Your task to perform on an android device: create a new album in the google photos Image 0: 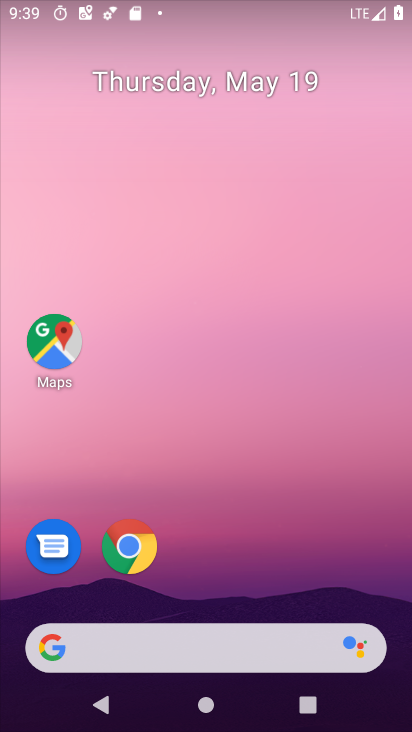
Step 0: drag from (248, 670) to (304, 154)
Your task to perform on an android device: create a new album in the google photos Image 1: 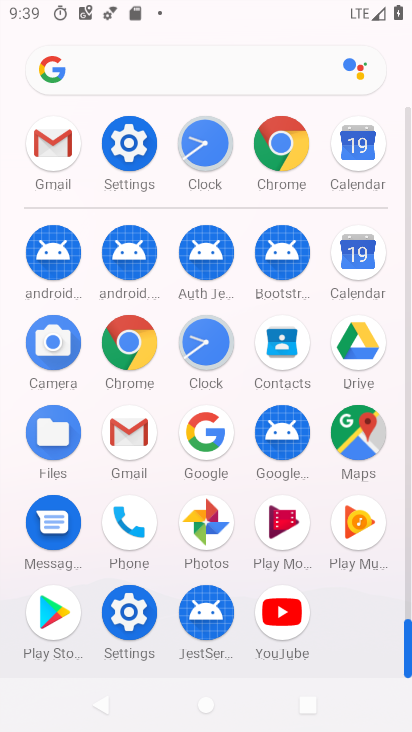
Step 1: click (212, 520)
Your task to perform on an android device: create a new album in the google photos Image 2: 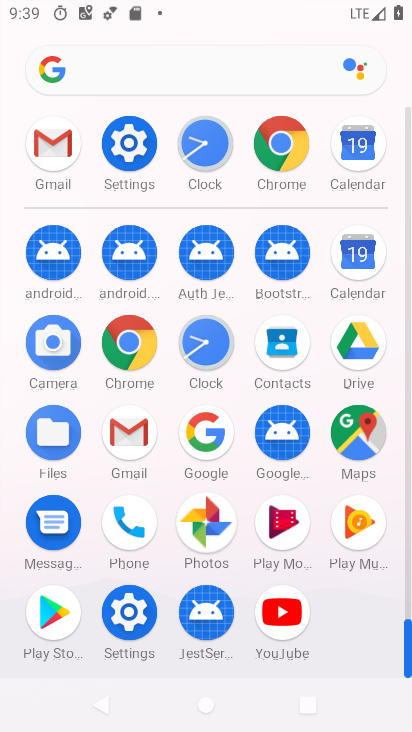
Step 2: click (212, 520)
Your task to perform on an android device: create a new album in the google photos Image 3: 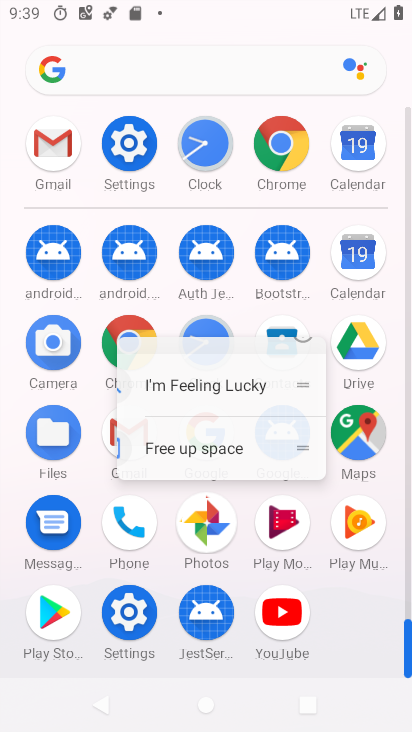
Step 3: click (213, 519)
Your task to perform on an android device: create a new album in the google photos Image 4: 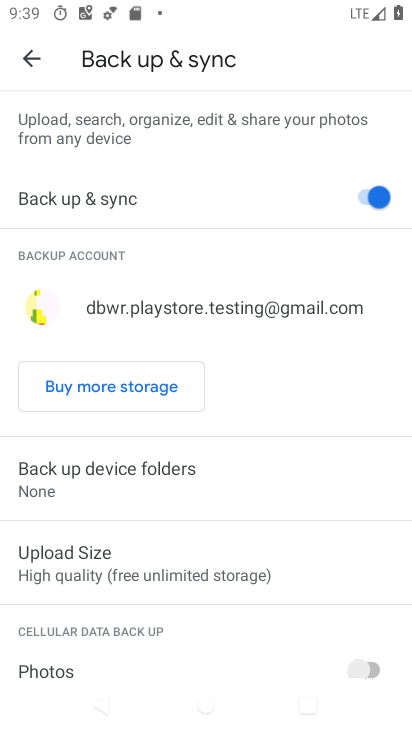
Step 4: click (25, 51)
Your task to perform on an android device: create a new album in the google photos Image 5: 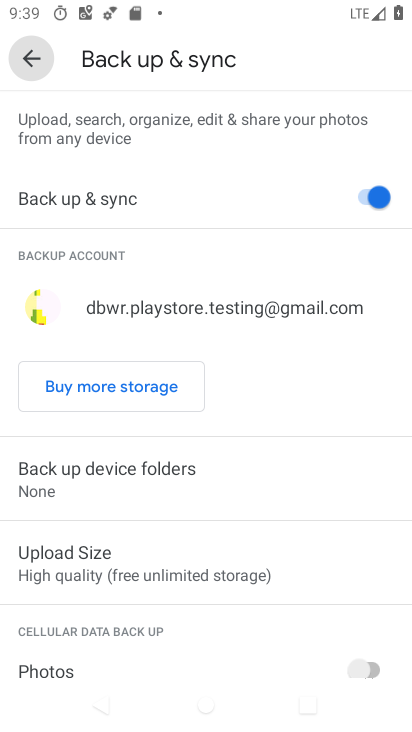
Step 5: click (25, 51)
Your task to perform on an android device: create a new album in the google photos Image 6: 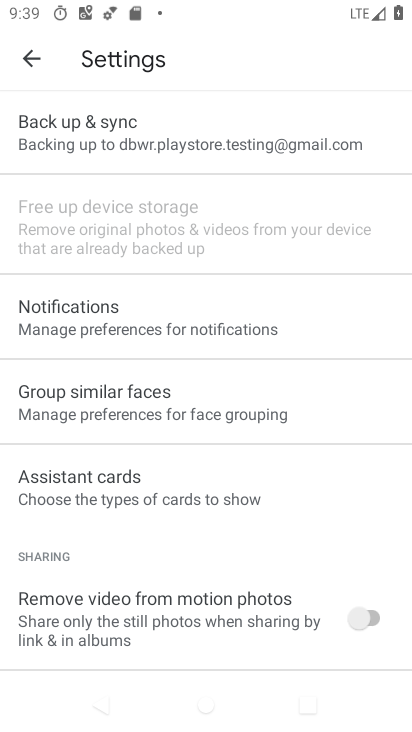
Step 6: click (26, 57)
Your task to perform on an android device: create a new album in the google photos Image 7: 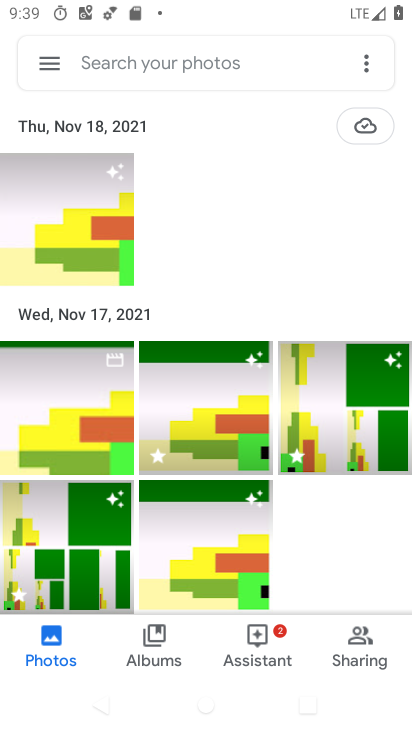
Step 7: click (366, 55)
Your task to perform on an android device: create a new album in the google photos Image 8: 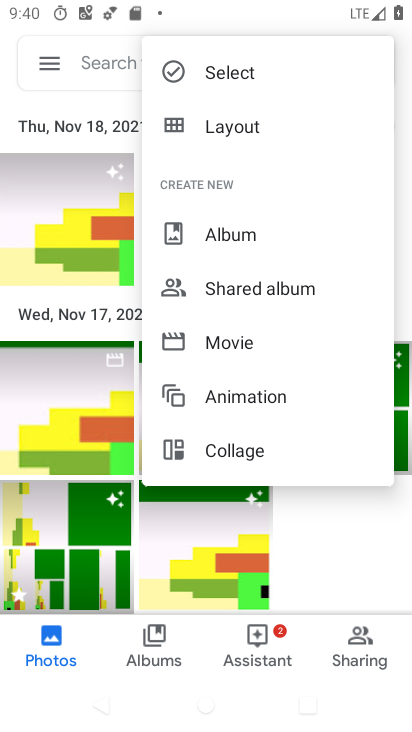
Step 8: click (30, 239)
Your task to perform on an android device: create a new album in the google photos Image 9: 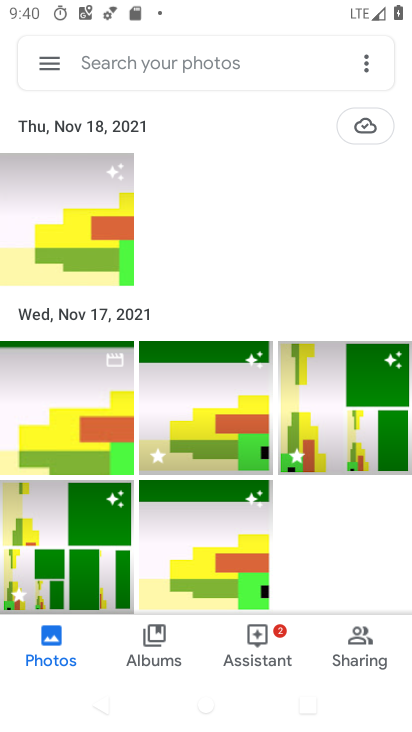
Step 9: click (160, 638)
Your task to perform on an android device: create a new album in the google photos Image 10: 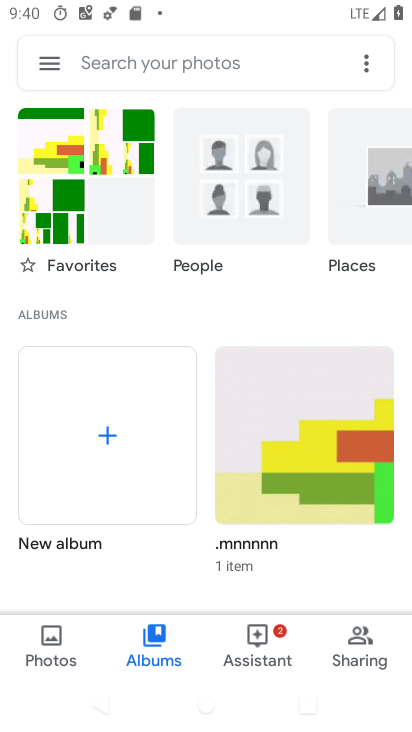
Step 10: click (364, 72)
Your task to perform on an android device: create a new album in the google photos Image 11: 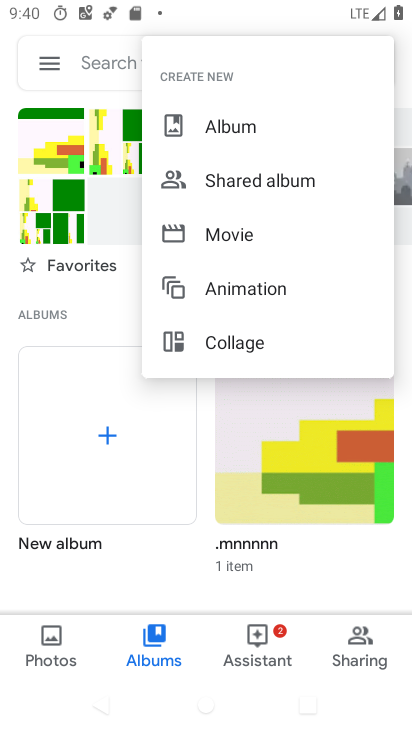
Step 11: click (219, 133)
Your task to perform on an android device: create a new album in the google photos Image 12: 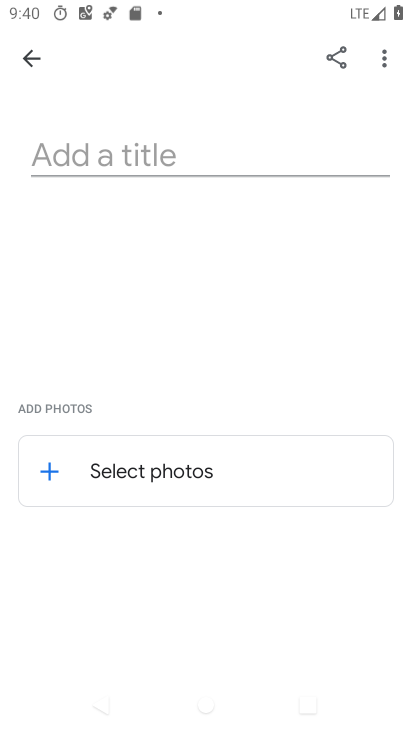
Step 12: click (71, 149)
Your task to perform on an android device: create a new album in the google photos Image 13: 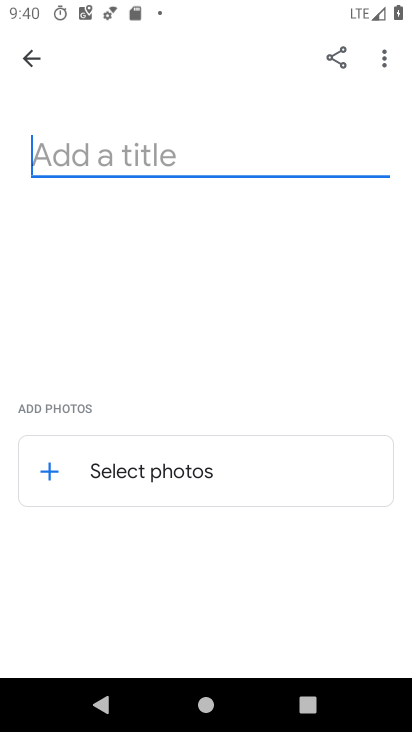
Step 13: type "ram"
Your task to perform on an android device: create a new album in the google photos Image 14: 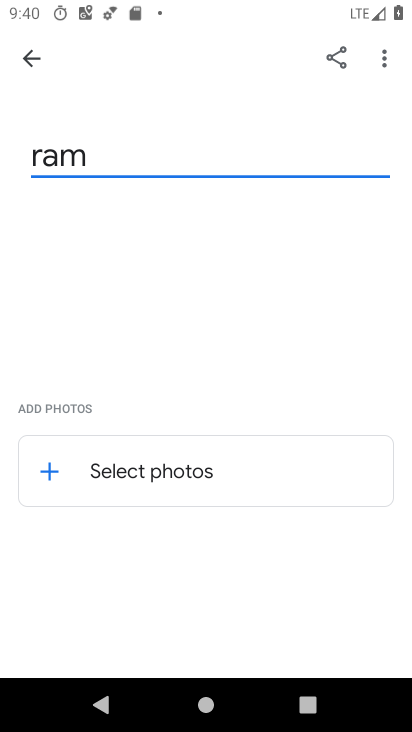
Step 14: click (122, 480)
Your task to perform on an android device: create a new album in the google photos Image 15: 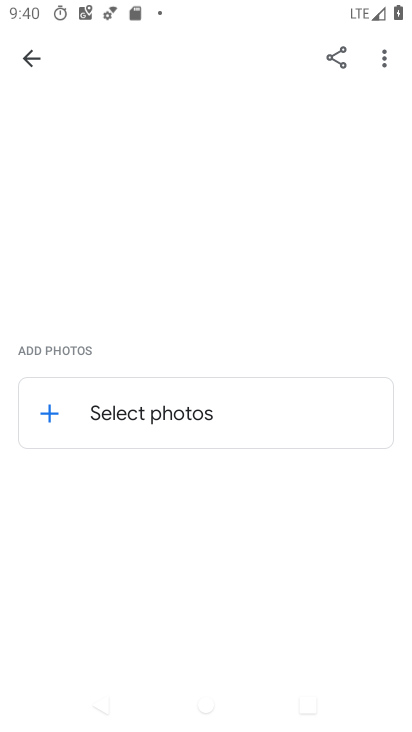
Step 15: click (104, 413)
Your task to perform on an android device: create a new album in the google photos Image 16: 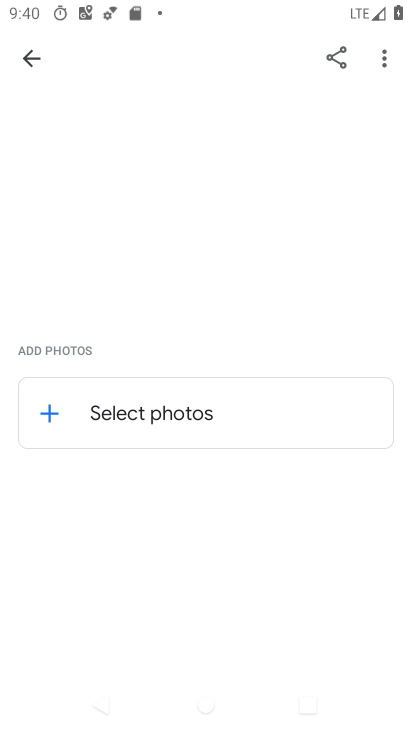
Step 16: click (104, 413)
Your task to perform on an android device: create a new album in the google photos Image 17: 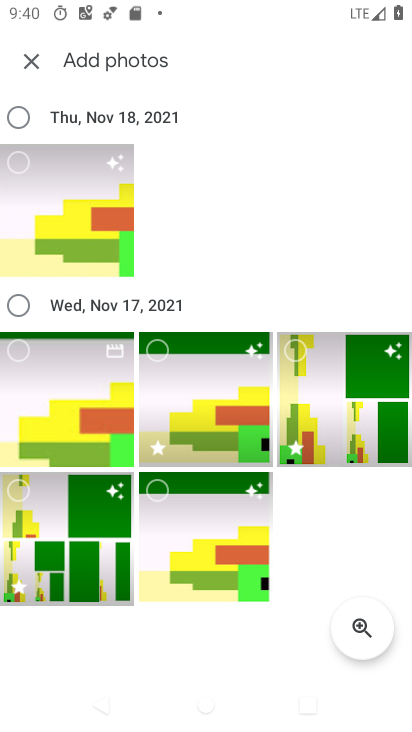
Step 17: click (12, 150)
Your task to perform on an android device: create a new album in the google photos Image 18: 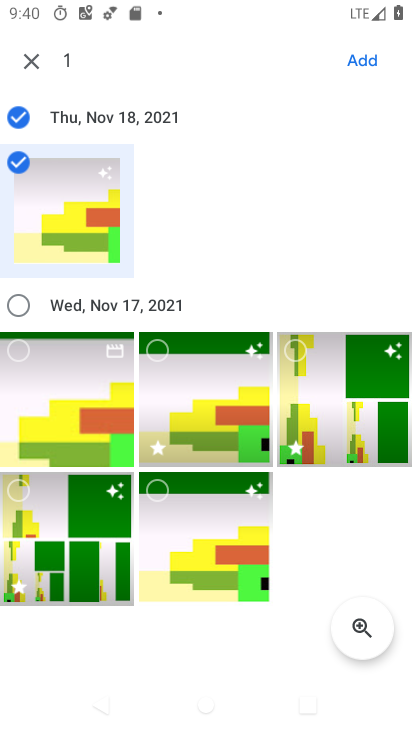
Step 18: click (351, 54)
Your task to perform on an android device: create a new album in the google photos Image 19: 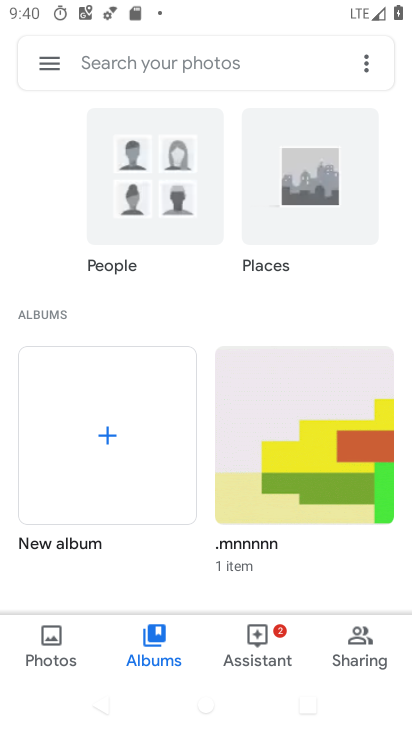
Step 19: task complete